Your task to perform on an android device: open sync settings in chrome Image 0: 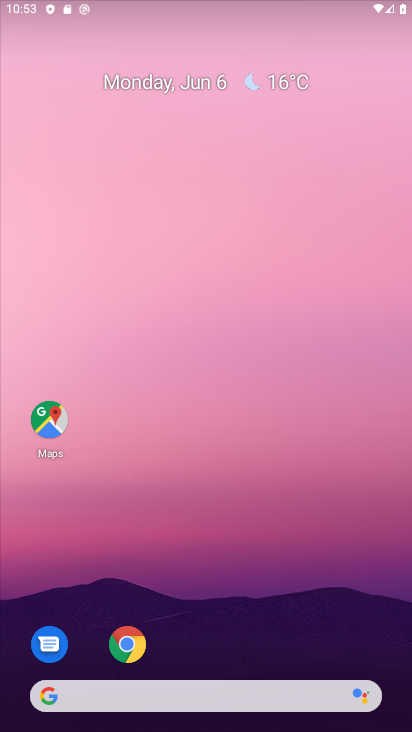
Step 0: drag from (177, 673) to (200, 184)
Your task to perform on an android device: open sync settings in chrome Image 1: 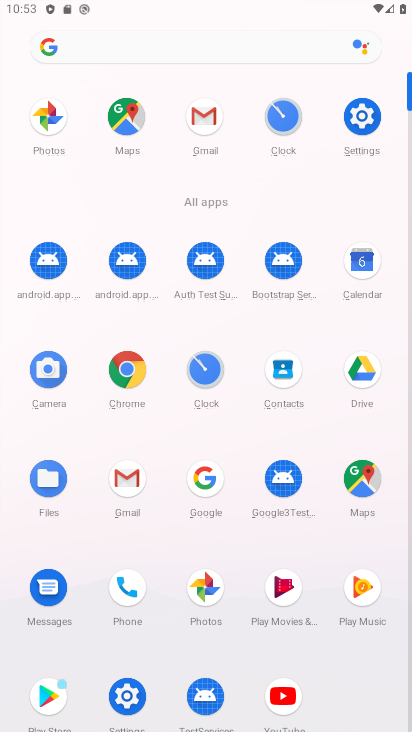
Step 1: click (118, 376)
Your task to perform on an android device: open sync settings in chrome Image 2: 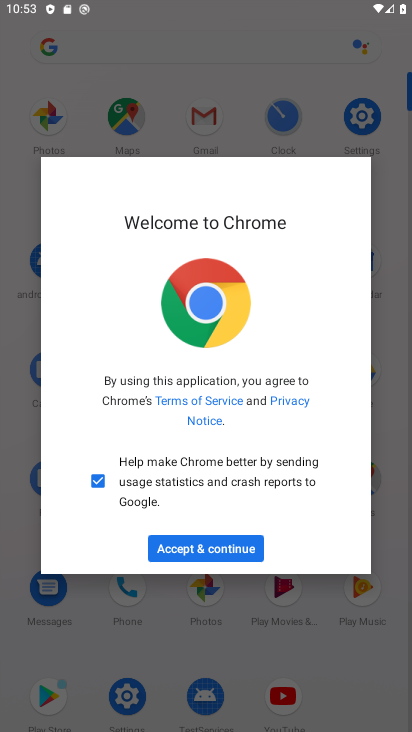
Step 2: click (237, 540)
Your task to perform on an android device: open sync settings in chrome Image 3: 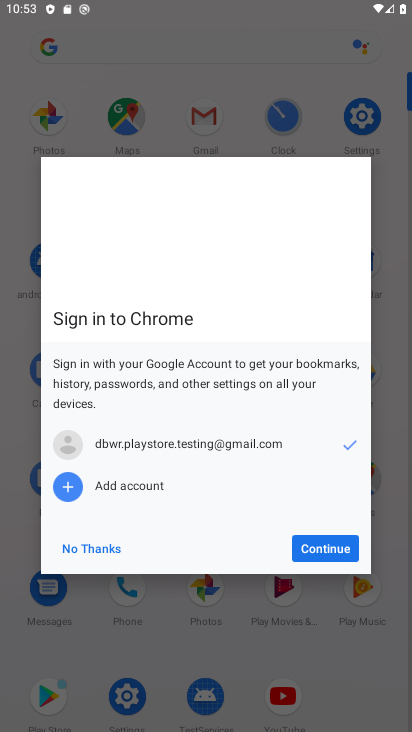
Step 3: click (327, 550)
Your task to perform on an android device: open sync settings in chrome Image 4: 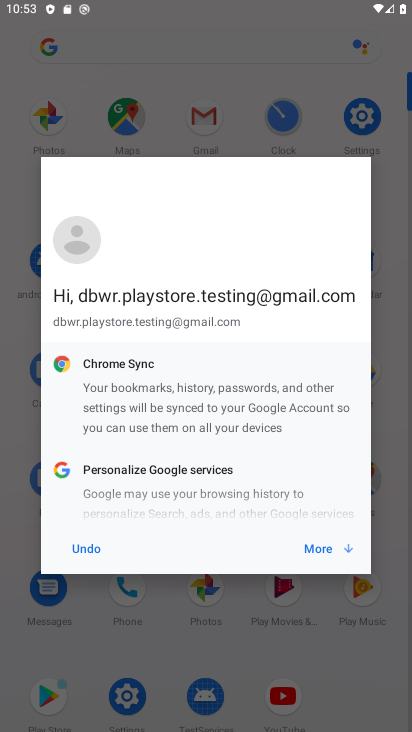
Step 4: click (327, 550)
Your task to perform on an android device: open sync settings in chrome Image 5: 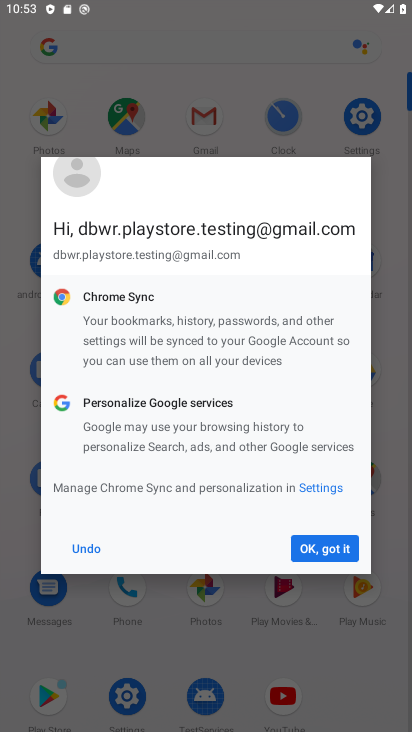
Step 5: click (328, 547)
Your task to perform on an android device: open sync settings in chrome Image 6: 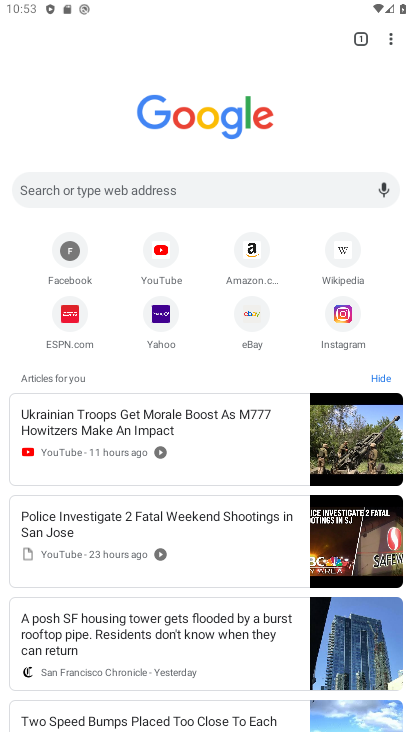
Step 6: click (394, 44)
Your task to perform on an android device: open sync settings in chrome Image 7: 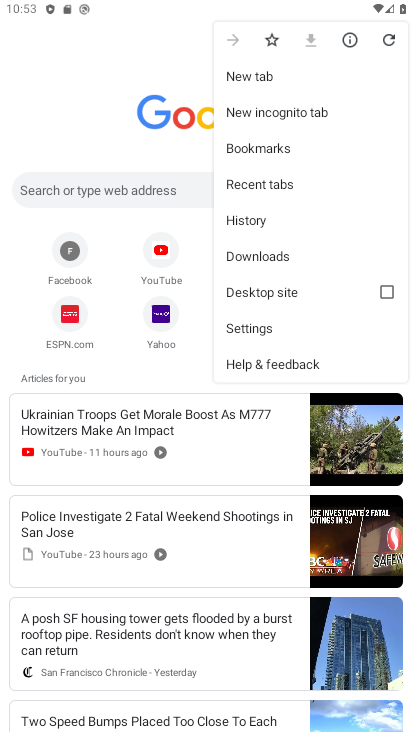
Step 7: click (307, 332)
Your task to perform on an android device: open sync settings in chrome Image 8: 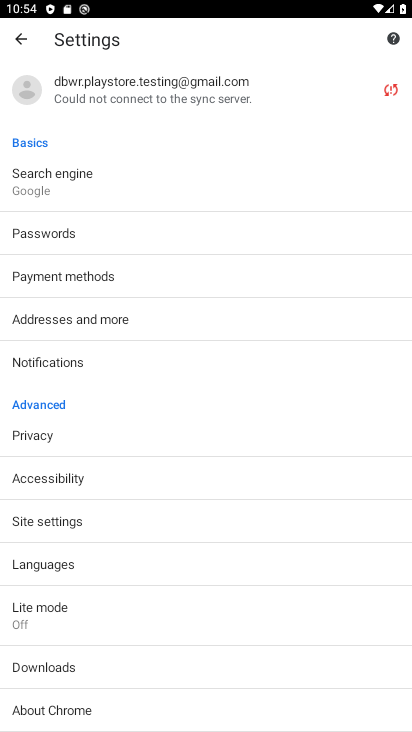
Step 8: click (245, 92)
Your task to perform on an android device: open sync settings in chrome Image 9: 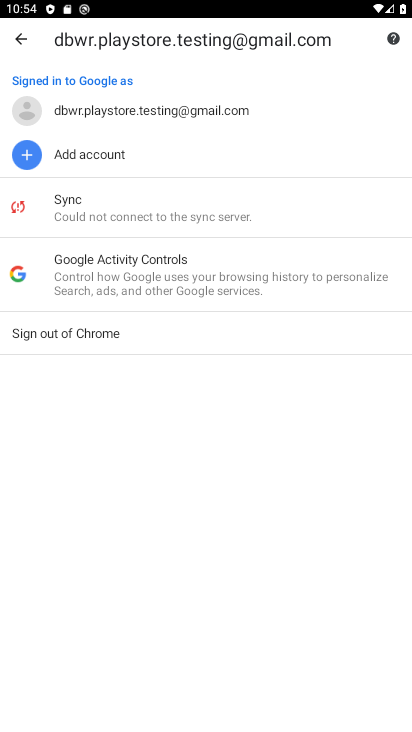
Step 9: click (178, 198)
Your task to perform on an android device: open sync settings in chrome Image 10: 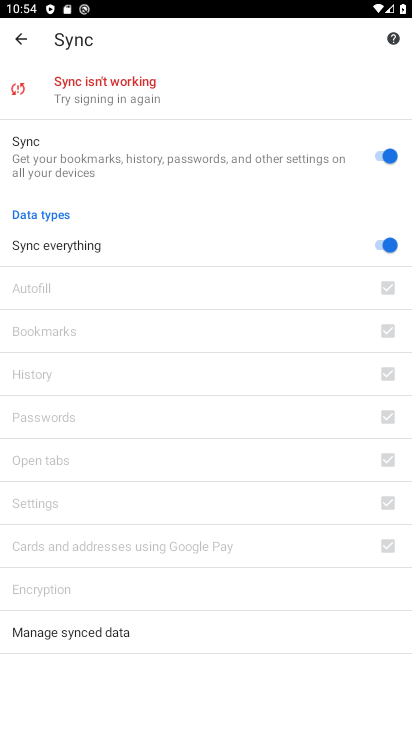
Step 10: task complete